Your task to perform on an android device: open app "Etsy: Buy & Sell Unique Items" (install if not already installed), go to login, and select forgot password Image 0: 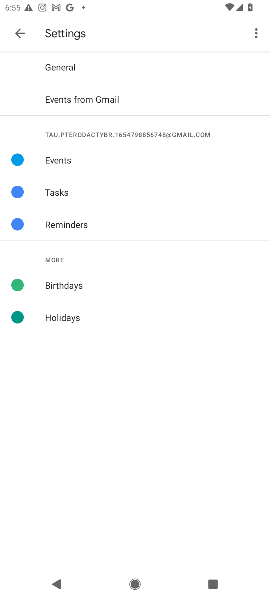
Step 0: click (15, 30)
Your task to perform on an android device: open app "Etsy: Buy & Sell Unique Items" (install if not already installed), go to login, and select forgot password Image 1: 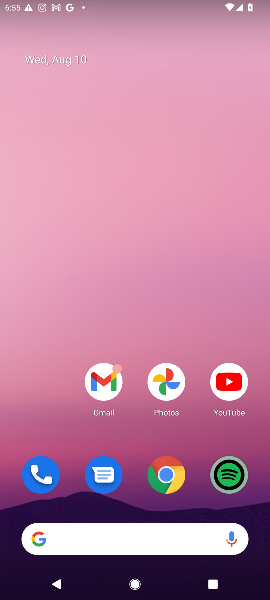
Step 1: drag from (131, 521) to (121, 226)
Your task to perform on an android device: open app "Etsy: Buy & Sell Unique Items" (install if not already installed), go to login, and select forgot password Image 2: 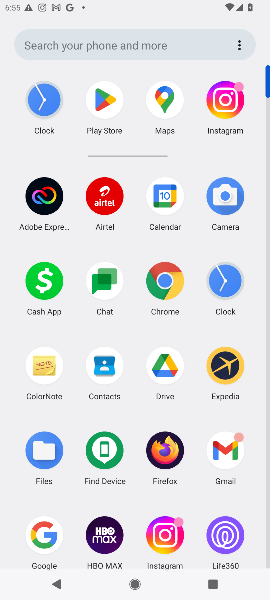
Step 2: click (78, 46)
Your task to perform on an android device: open app "Etsy: Buy & Sell Unique Items" (install if not already installed), go to login, and select forgot password Image 3: 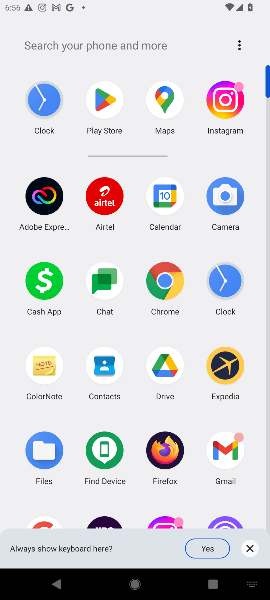
Step 3: click (96, 106)
Your task to perform on an android device: open app "Etsy: Buy & Sell Unique Items" (install if not already installed), go to login, and select forgot password Image 4: 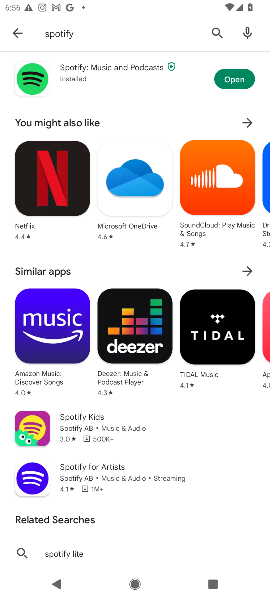
Step 4: click (214, 30)
Your task to perform on an android device: open app "Etsy: Buy & Sell Unique Items" (install if not already installed), go to login, and select forgot password Image 5: 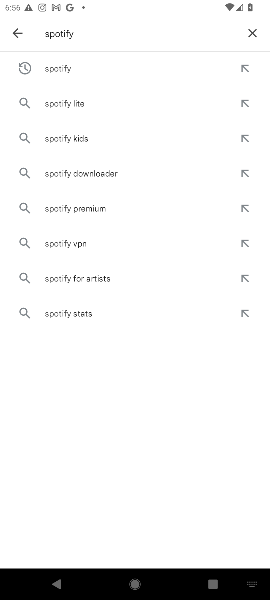
Step 5: click (254, 34)
Your task to perform on an android device: open app "Etsy: Buy & Sell Unique Items" (install if not already installed), go to login, and select forgot password Image 6: 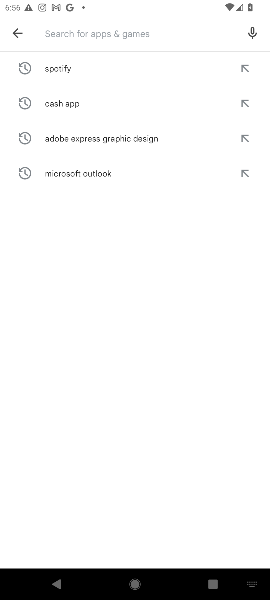
Step 6: type "Etsy: Buy & Sell Unique Items"
Your task to perform on an android device: open app "Etsy: Buy & Sell Unique Items" (install if not already installed), go to login, and select forgot password Image 7: 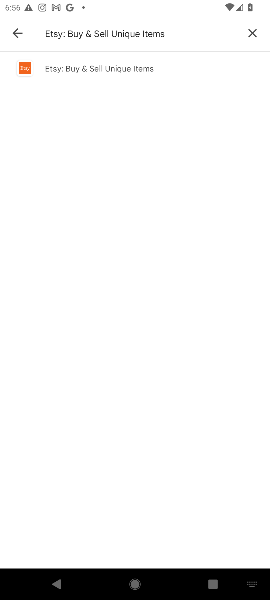
Step 7: click (66, 67)
Your task to perform on an android device: open app "Etsy: Buy & Sell Unique Items" (install if not already installed), go to login, and select forgot password Image 8: 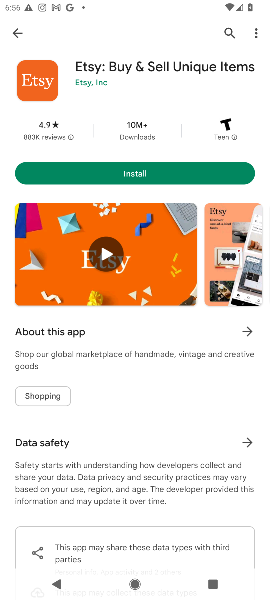
Step 8: click (126, 174)
Your task to perform on an android device: open app "Etsy: Buy & Sell Unique Items" (install if not already installed), go to login, and select forgot password Image 9: 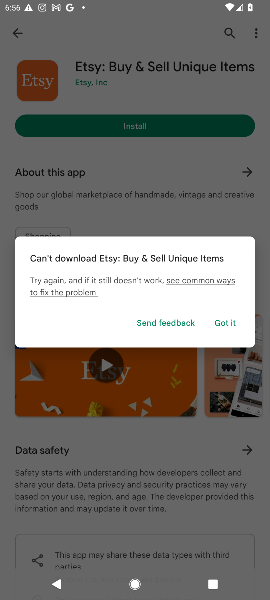
Step 9: click (219, 325)
Your task to perform on an android device: open app "Etsy: Buy & Sell Unique Items" (install if not already installed), go to login, and select forgot password Image 10: 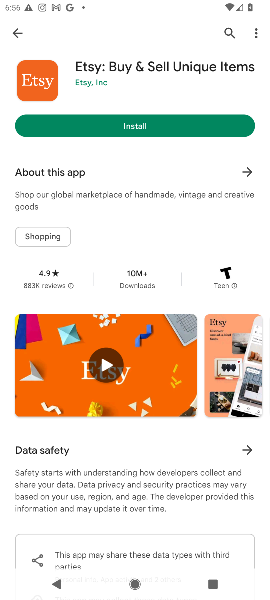
Step 10: task complete